Your task to perform on an android device: Go to ESPN.com Image 0: 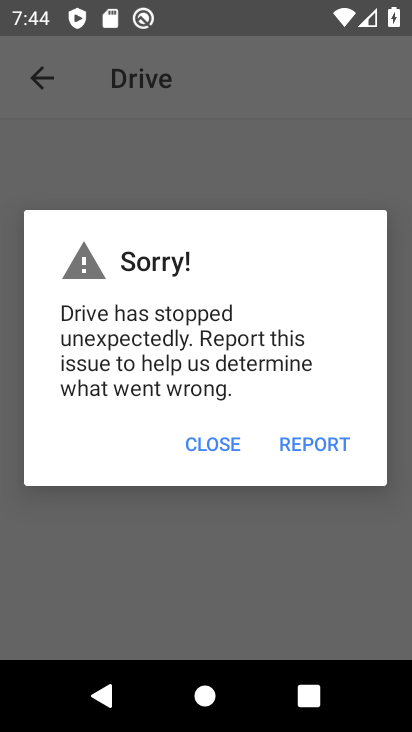
Step 0: press home button
Your task to perform on an android device: Go to ESPN.com Image 1: 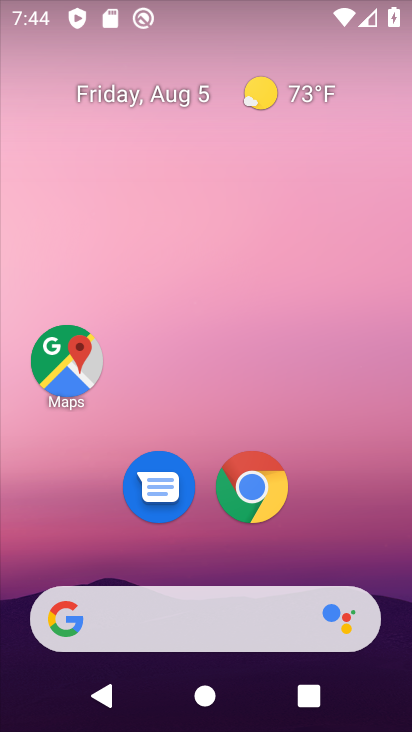
Step 1: click (260, 494)
Your task to perform on an android device: Go to ESPN.com Image 2: 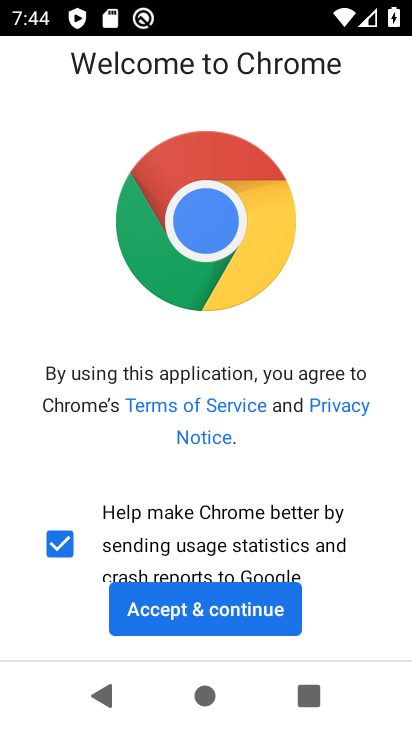
Step 2: click (199, 608)
Your task to perform on an android device: Go to ESPN.com Image 3: 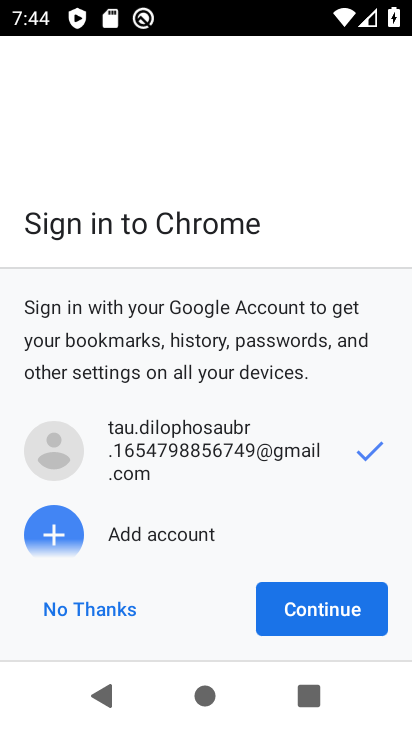
Step 3: click (327, 613)
Your task to perform on an android device: Go to ESPN.com Image 4: 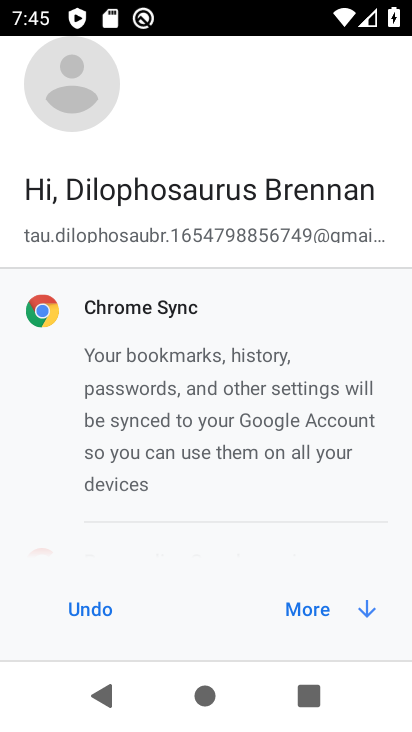
Step 4: click (315, 601)
Your task to perform on an android device: Go to ESPN.com Image 5: 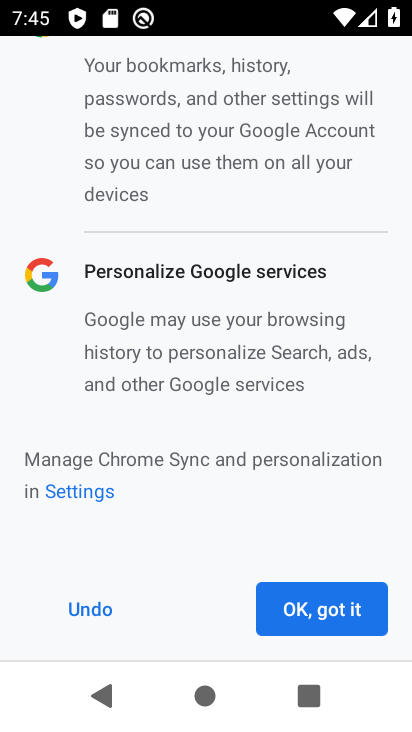
Step 5: click (332, 598)
Your task to perform on an android device: Go to ESPN.com Image 6: 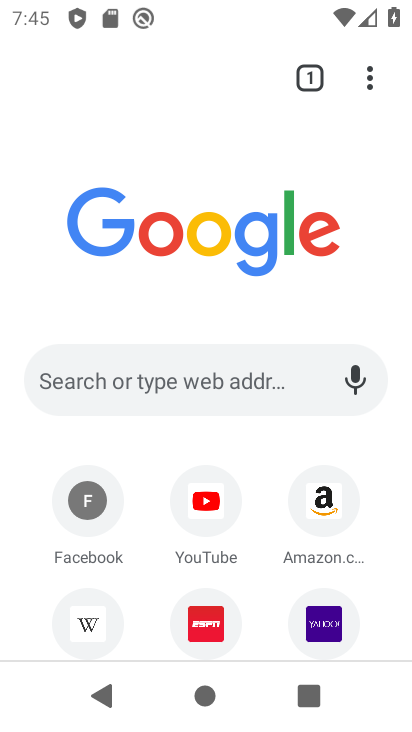
Step 6: click (212, 622)
Your task to perform on an android device: Go to ESPN.com Image 7: 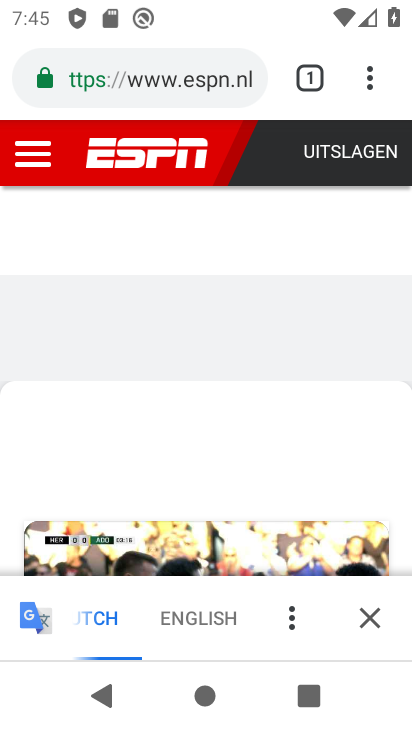
Step 7: click (226, 617)
Your task to perform on an android device: Go to ESPN.com Image 8: 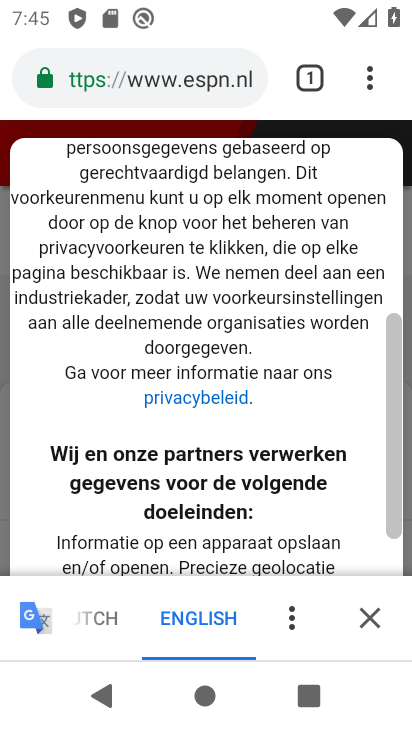
Step 8: drag from (138, 487) to (226, 155)
Your task to perform on an android device: Go to ESPN.com Image 9: 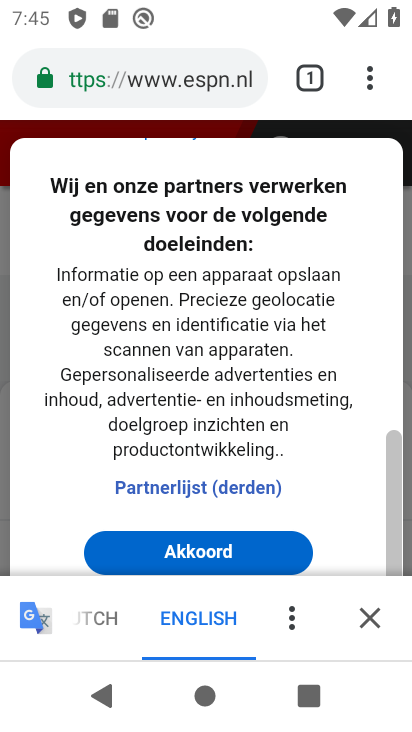
Step 9: drag from (211, 440) to (310, 205)
Your task to perform on an android device: Go to ESPN.com Image 10: 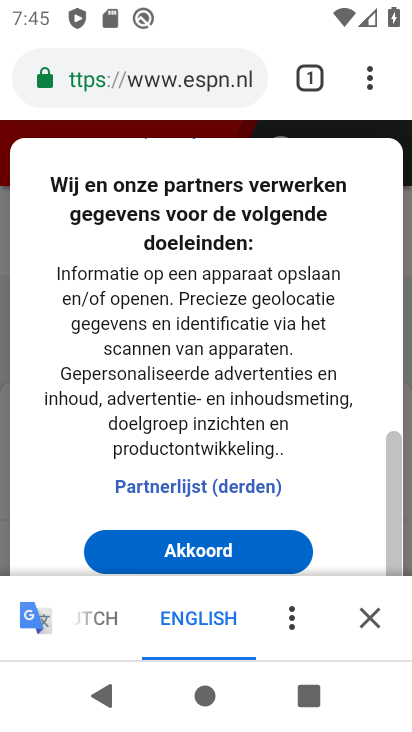
Step 10: drag from (318, 240) to (303, 465)
Your task to perform on an android device: Go to ESPN.com Image 11: 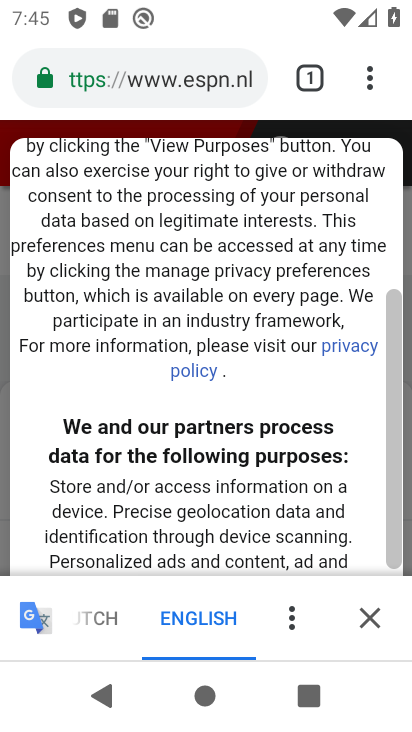
Step 11: drag from (250, 512) to (331, 223)
Your task to perform on an android device: Go to ESPN.com Image 12: 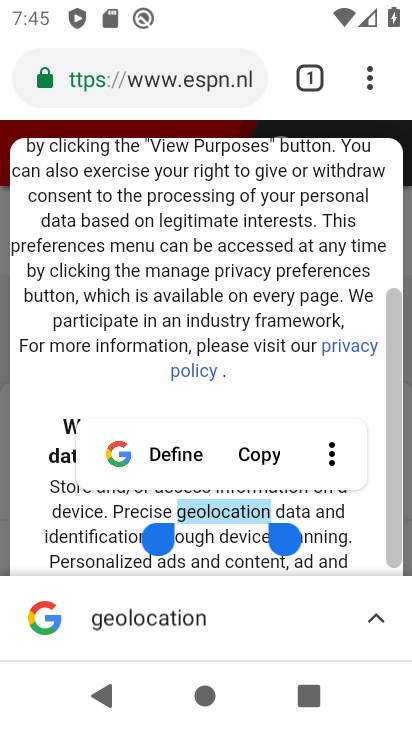
Step 12: drag from (100, 515) to (243, 232)
Your task to perform on an android device: Go to ESPN.com Image 13: 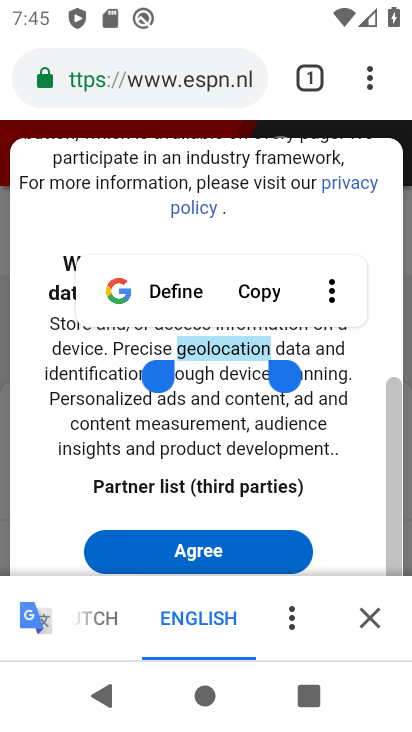
Step 13: click (355, 496)
Your task to perform on an android device: Go to ESPN.com Image 14: 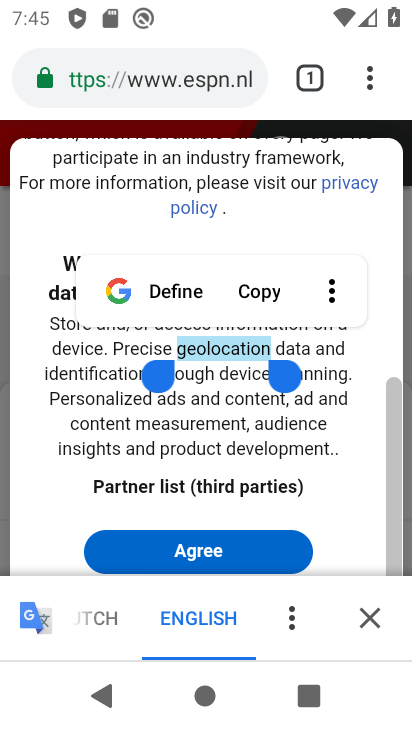
Step 14: click (237, 560)
Your task to perform on an android device: Go to ESPN.com Image 15: 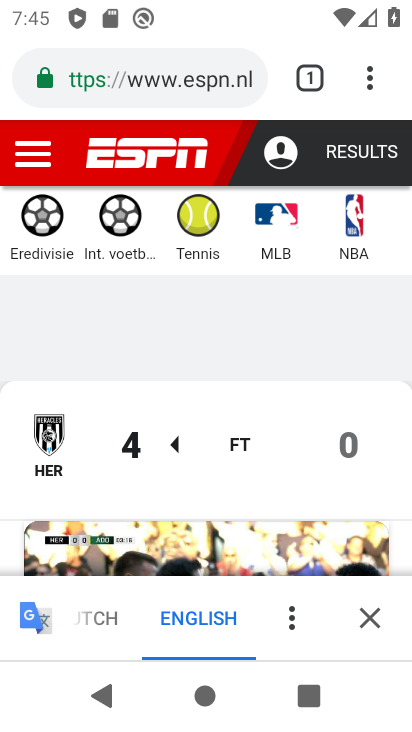
Step 15: task complete